Your task to perform on an android device: Set the phone to "Do not disturb". Image 0: 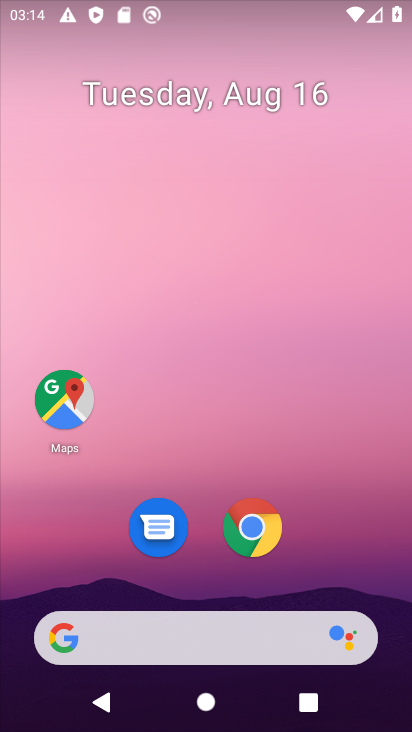
Step 0: press home button
Your task to perform on an android device: Set the phone to "Do not disturb". Image 1: 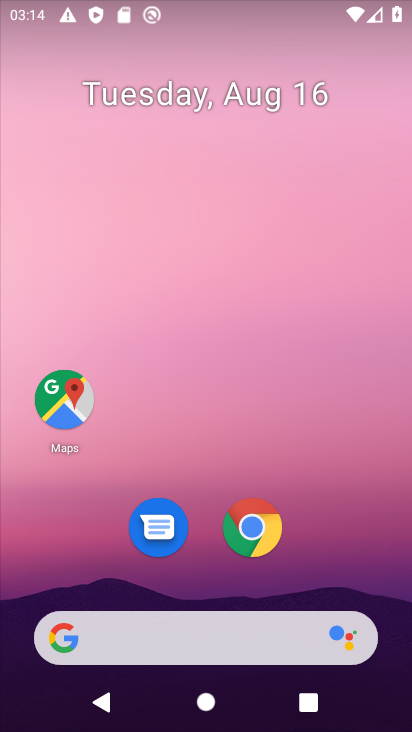
Step 1: drag from (214, 11) to (202, 466)
Your task to perform on an android device: Set the phone to "Do not disturb". Image 2: 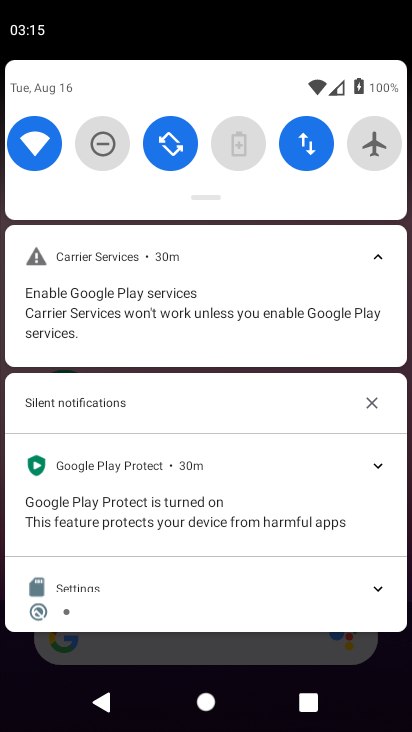
Step 2: click (101, 141)
Your task to perform on an android device: Set the phone to "Do not disturb". Image 3: 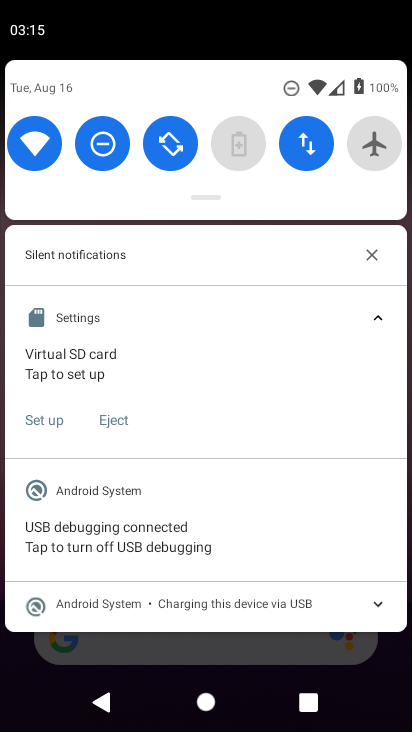
Step 3: task complete